Your task to perform on an android device: change your default location settings in chrome Image 0: 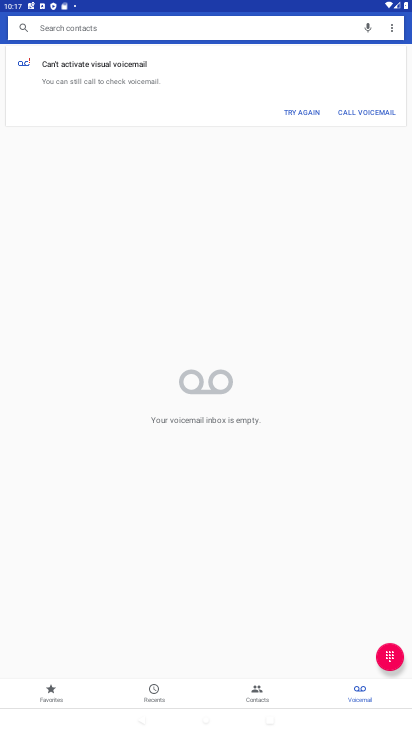
Step 0: press home button
Your task to perform on an android device: change your default location settings in chrome Image 1: 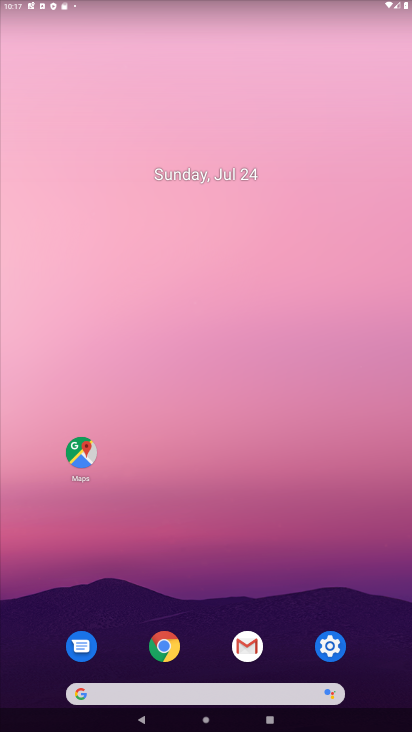
Step 1: click (155, 639)
Your task to perform on an android device: change your default location settings in chrome Image 2: 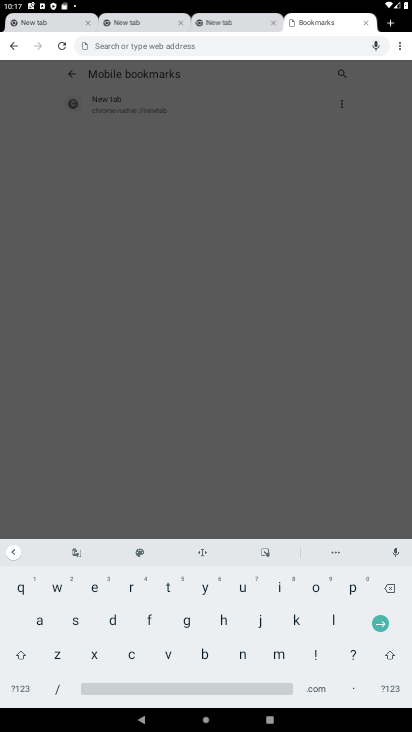
Step 2: click (399, 51)
Your task to perform on an android device: change your default location settings in chrome Image 3: 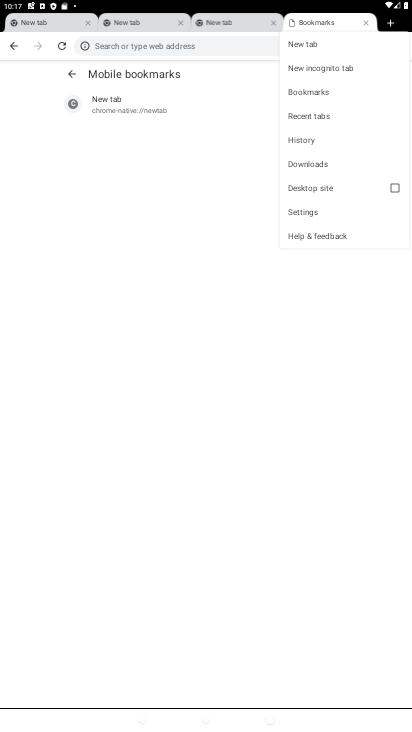
Step 3: click (325, 212)
Your task to perform on an android device: change your default location settings in chrome Image 4: 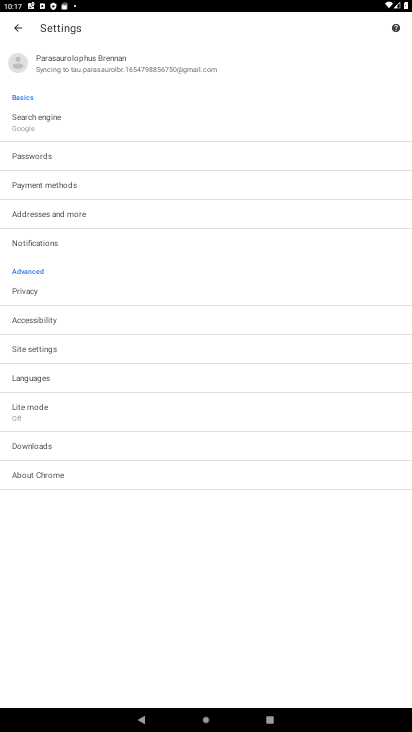
Step 4: click (48, 344)
Your task to perform on an android device: change your default location settings in chrome Image 5: 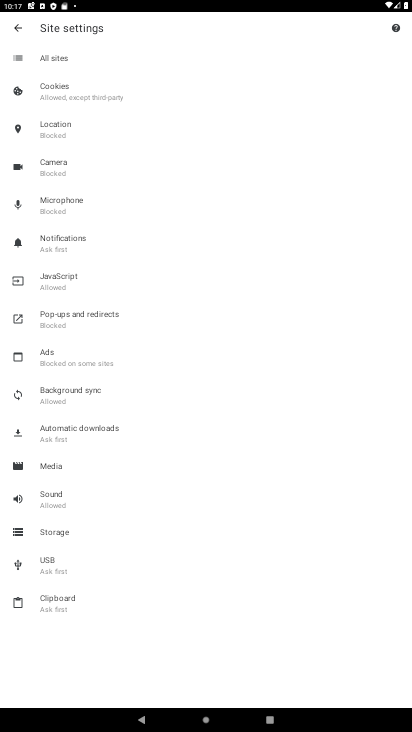
Step 5: click (110, 134)
Your task to perform on an android device: change your default location settings in chrome Image 6: 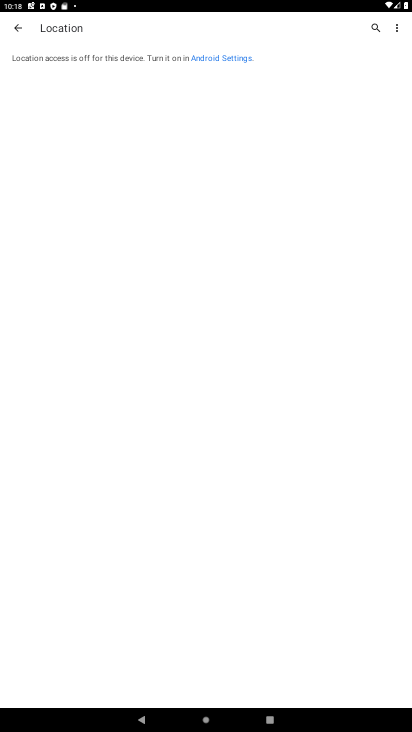
Step 6: task complete